Your task to perform on an android device: Toggle the flashlight Image 0: 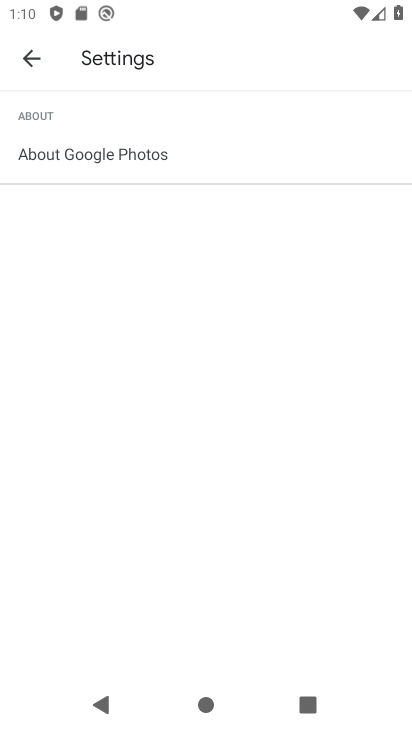
Step 0: press home button
Your task to perform on an android device: Toggle the flashlight Image 1: 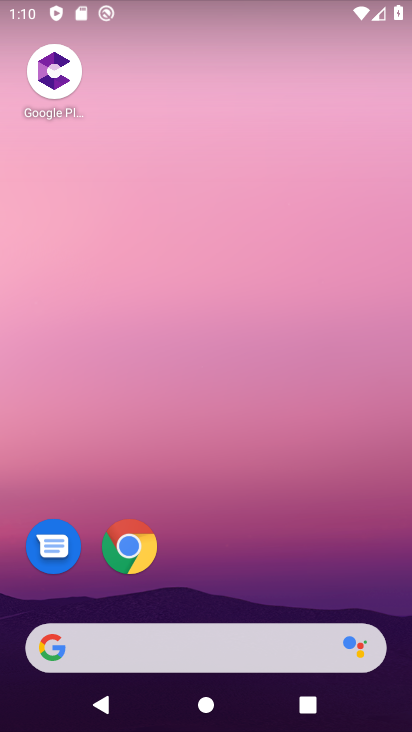
Step 1: drag from (205, 592) to (296, 118)
Your task to perform on an android device: Toggle the flashlight Image 2: 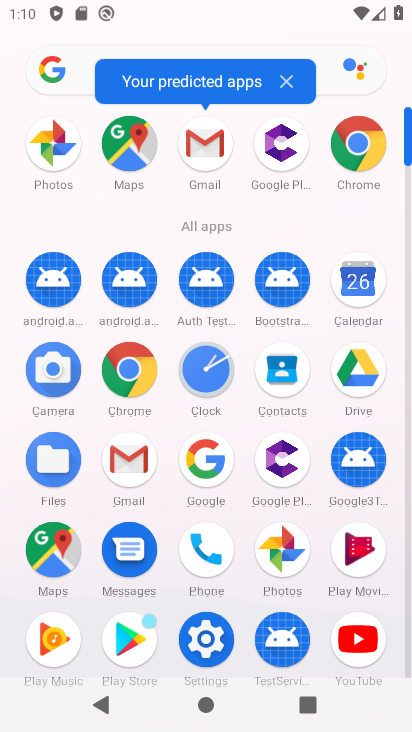
Step 2: click (205, 640)
Your task to perform on an android device: Toggle the flashlight Image 3: 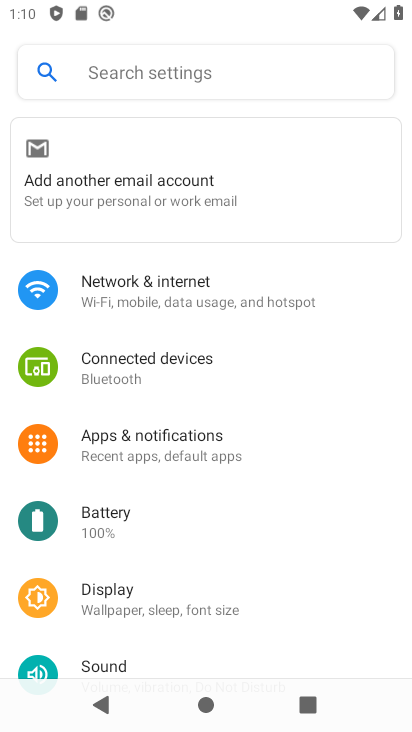
Step 3: click (183, 77)
Your task to perform on an android device: Toggle the flashlight Image 4: 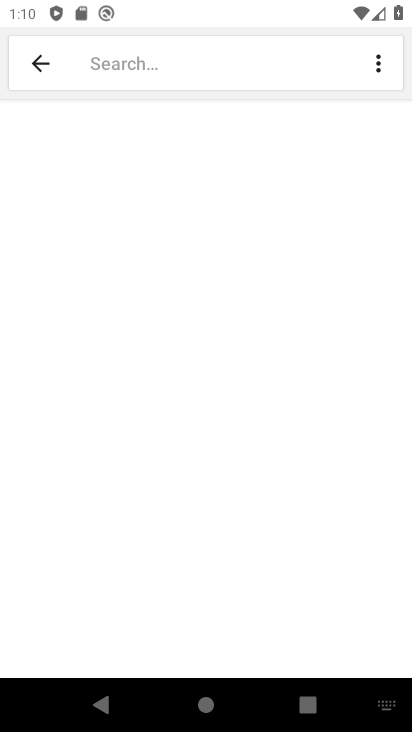
Step 4: type "flash"
Your task to perform on an android device: Toggle the flashlight Image 5: 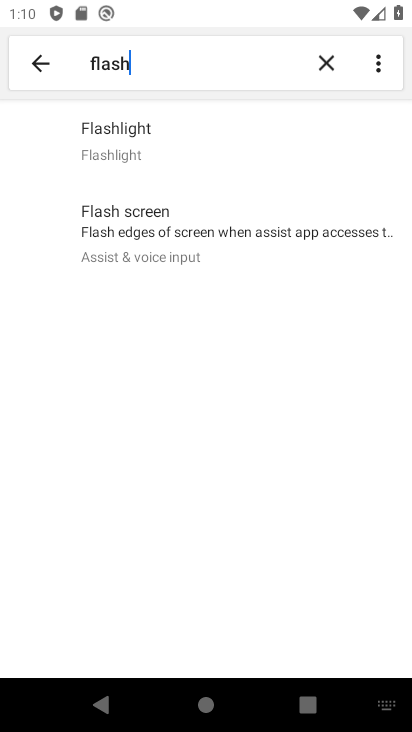
Step 5: task complete